Your task to perform on an android device: turn off data saver in the chrome app Image 0: 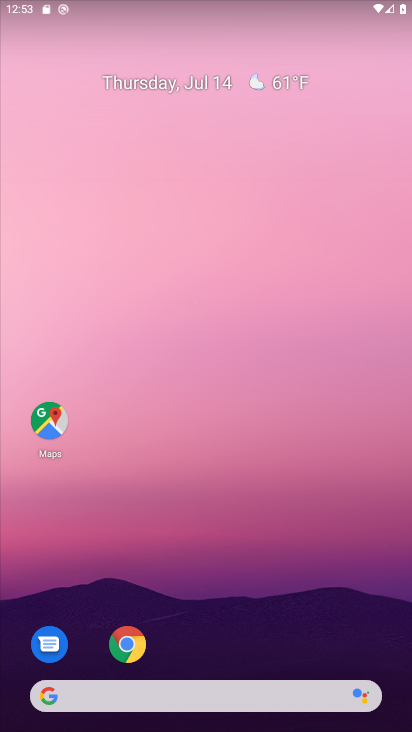
Step 0: click (128, 650)
Your task to perform on an android device: turn off data saver in the chrome app Image 1: 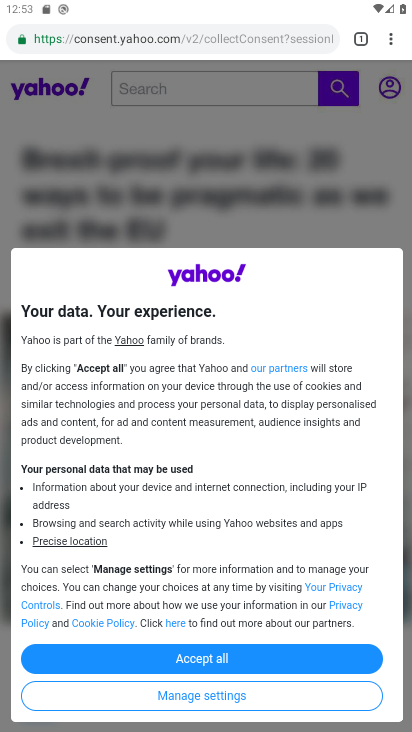
Step 1: click (390, 37)
Your task to perform on an android device: turn off data saver in the chrome app Image 2: 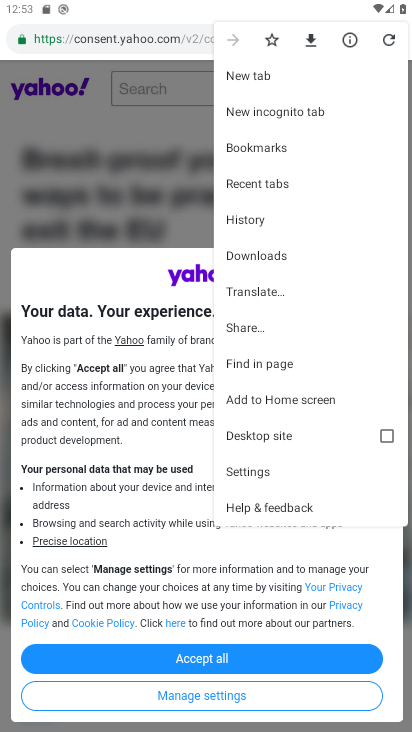
Step 2: click (282, 472)
Your task to perform on an android device: turn off data saver in the chrome app Image 3: 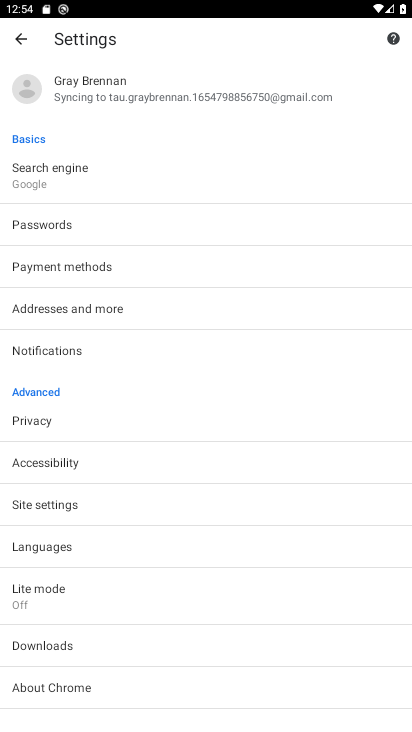
Step 3: click (68, 591)
Your task to perform on an android device: turn off data saver in the chrome app Image 4: 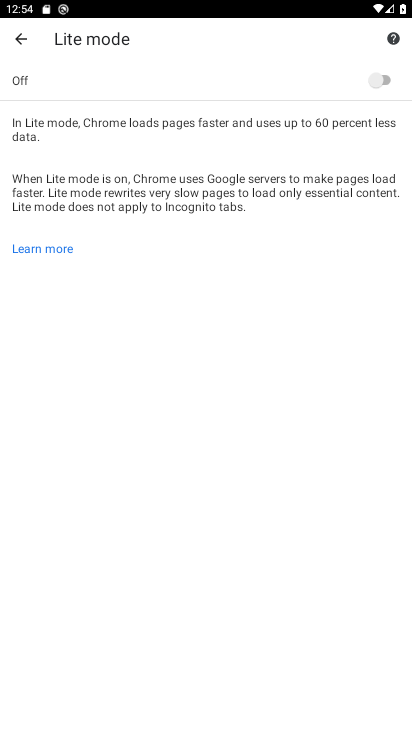
Step 4: task complete